Your task to perform on an android device: turn on data saver in the chrome app Image 0: 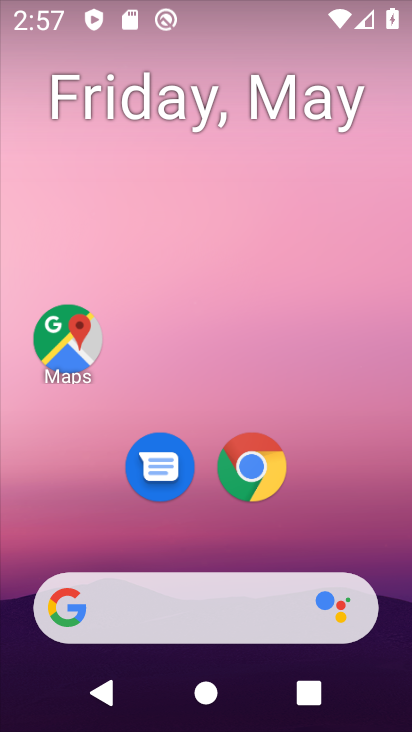
Step 0: drag from (359, 528) to (315, 0)
Your task to perform on an android device: turn on data saver in the chrome app Image 1: 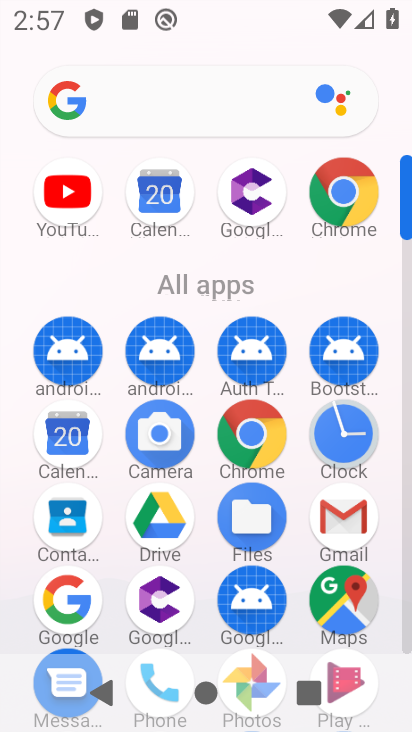
Step 1: click (347, 201)
Your task to perform on an android device: turn on data saver in the chrome app Image 2: 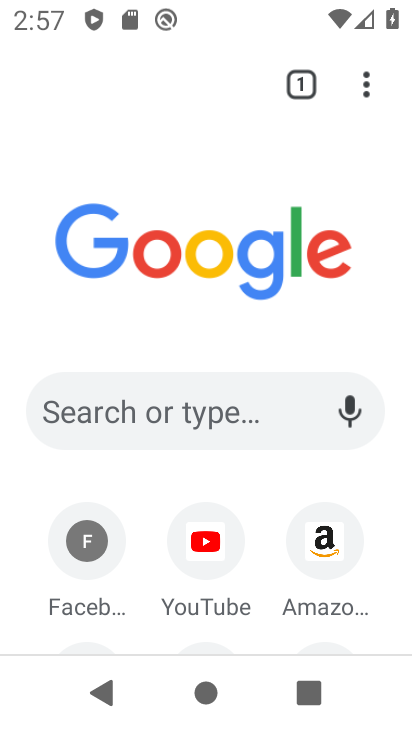
Step 2: drag from (374, 86) to (198, 537)
Your task to perform on an android device: turn on data saver in the chrome app Image 3: 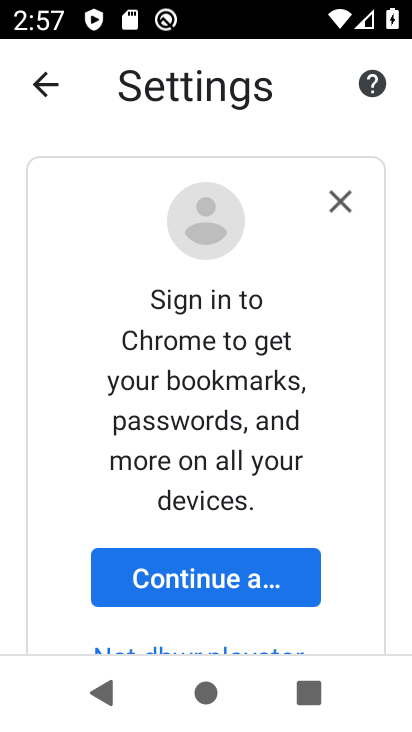
Step 3: drag from (338, 634) to (297, 249)
Your task to perform on an android device: turn on data saver in the chrome app Image 4: 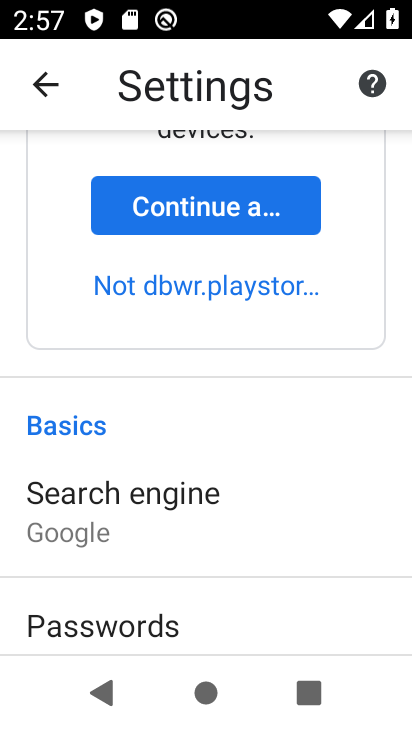
Step 4: drag from (271, 628) to (256, 274)
Your task to perform on an android device: turn on data saver in the chrome app Image 5: 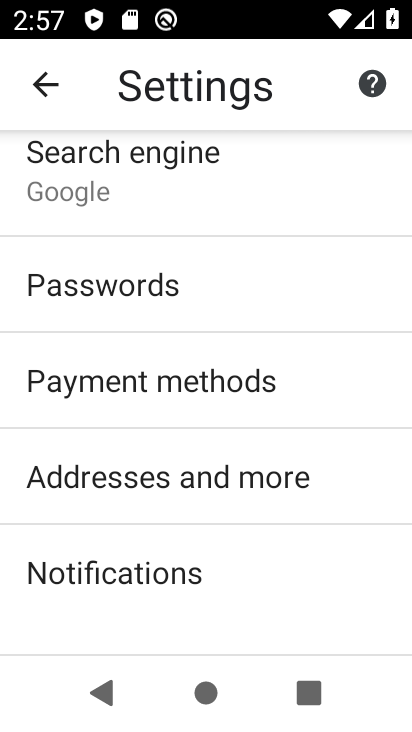
Step 5: drag from (253, 592) to (246, 230)
Your task to perform on an android device: turn on data saver in the chrome app Image 6: 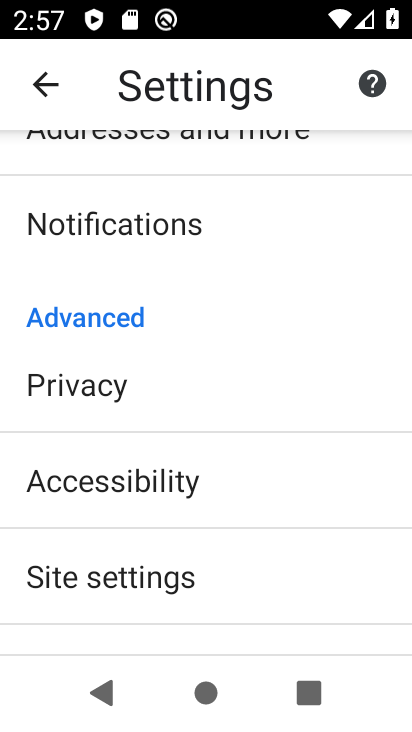
Step 6: drag from (225, 577) to (225, 273)
Your task to perform on an android device: turn on data saver in the chrome app Image 7: 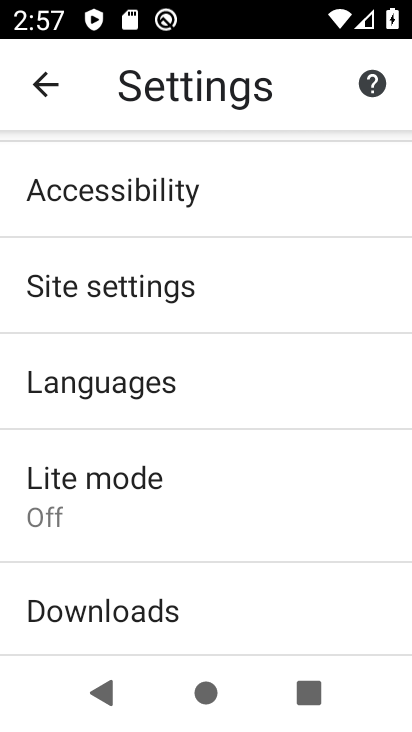
Step 7: click (142, 515)
Your task to perform on an android device: turn on data saver in the chrome app Image 8: 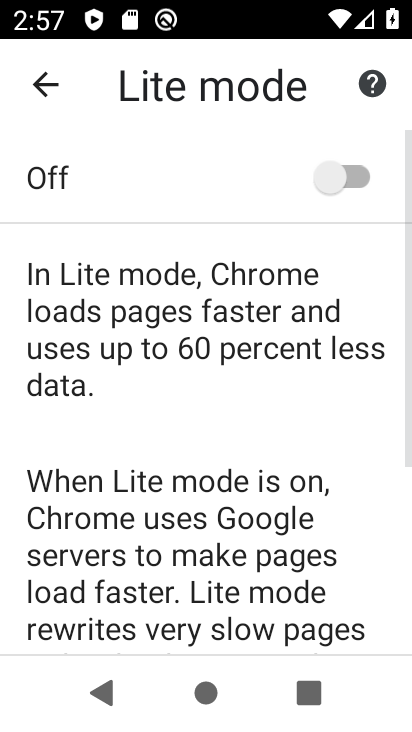
Step 8: click (324, 196)
Your task to perform on an android device: turn on data saver in the chrome app Image 9: 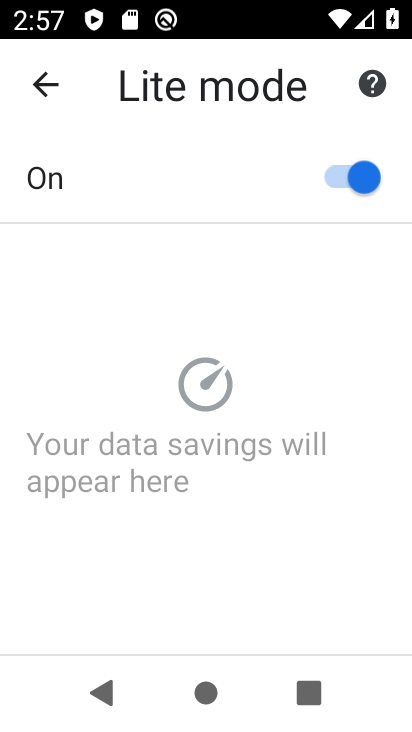
Step 9: task complete